Your task to perform on an android device: Go to Google maps Image 0: 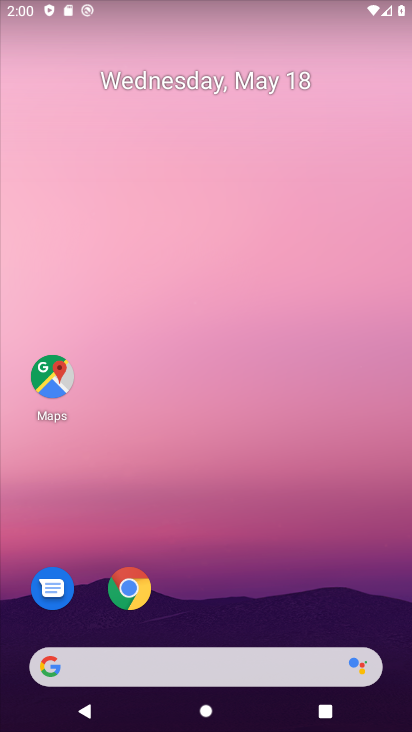
Step 0: click (53, 377)
Your task to perform on an android device: Go to Google maps Image 1: 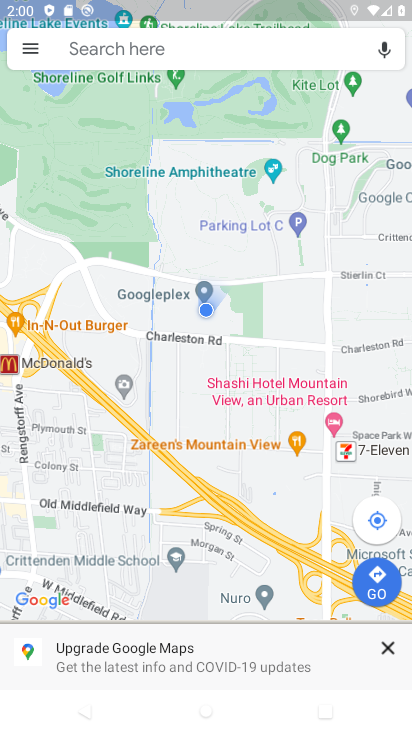
Step 1: task complete